Your task to perform on an android device: Open wifi settings Image 0: 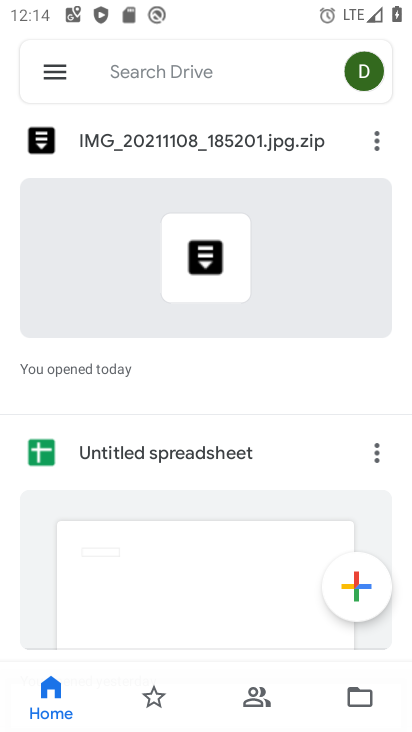
Step 0: press home button
Your task to perform on an android device: Open wifi settings Image 1: 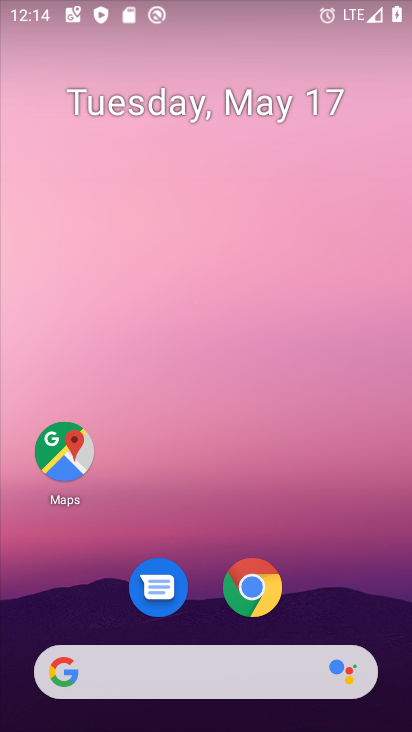
Step 1: drag from (377, 619) to (286, 82)
Your task to perform on an android device: Open wifi settings Image 2: 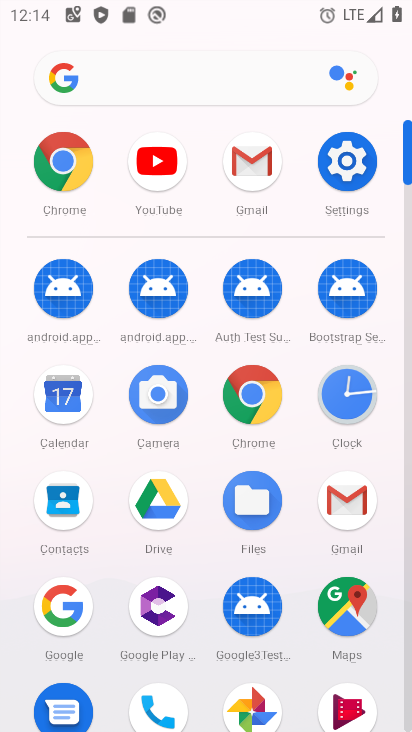
Step 2: click (347, 174)
Your task to perform on an android device: Open wifi settings Image 3: 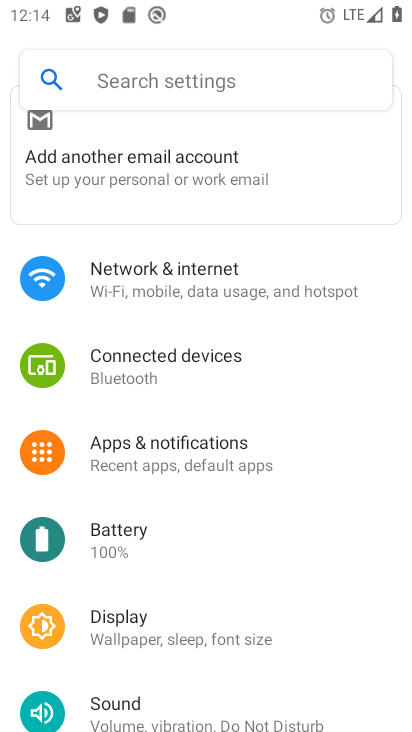
Step 3: click (229, 268)
Your task to perform on an android device: Open wifi settings Image 4: 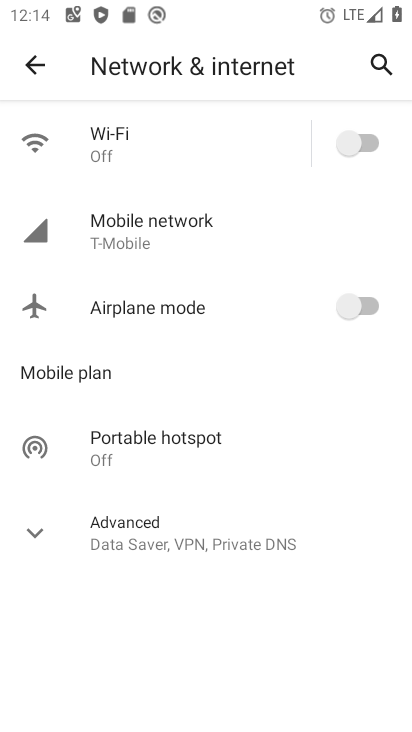
Step 4: click (185, 151)
Your task to perform on an android device: Open wifi settings Image 5: 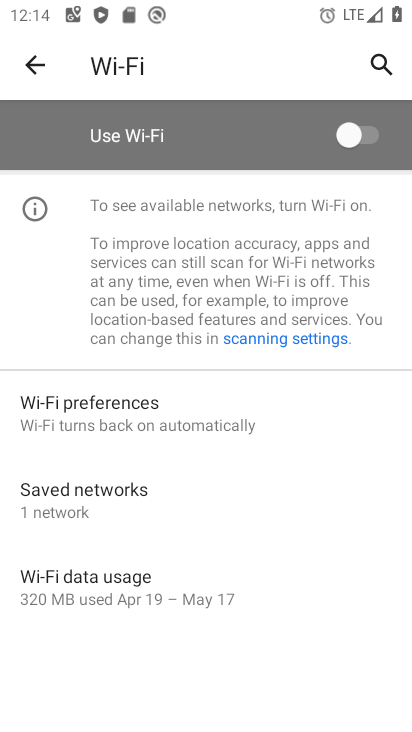
Step 5: task complete